Your task to perform on an android device: check android version Image 0: 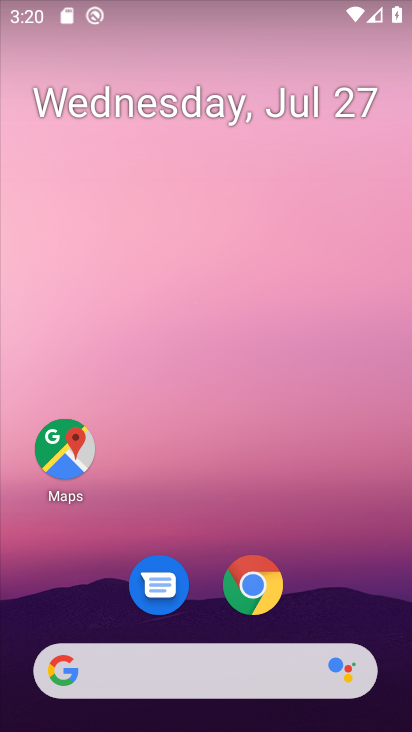
Step 0: drag from (320, 593) to (331, 4)
Your task to perform on an android device: check android version Image 1: 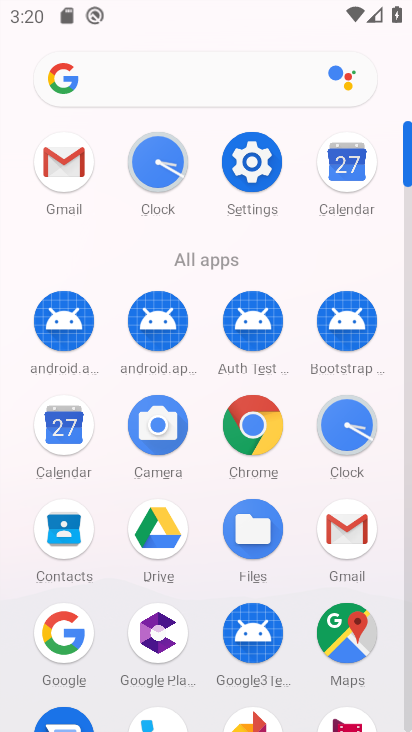
Step 1: click (261, 167)
Your task to perform on an android device: check android version Image 2: 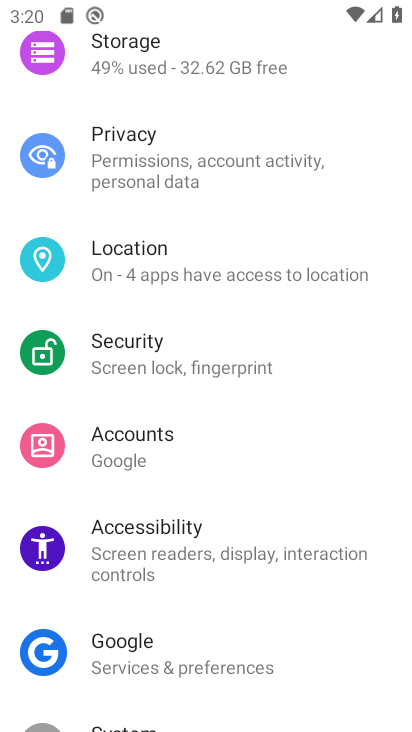
Step 2: drag from (250, 580) to (217, 257)
Your task to perform on an android device: check android version Image 3: 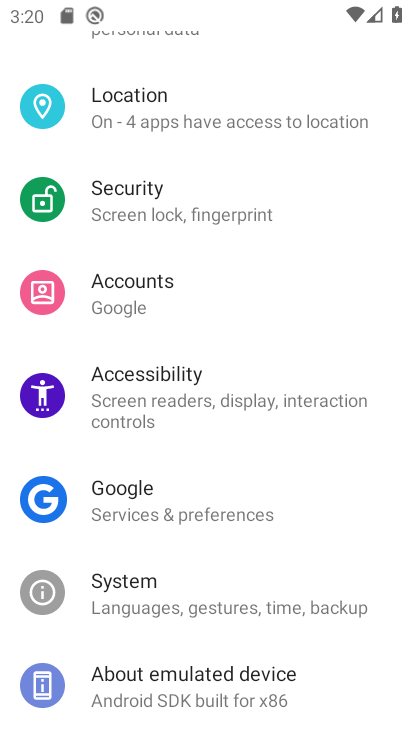
Step 3: click (233, 682)
Your task to perform on an android device: check android version Image 4: 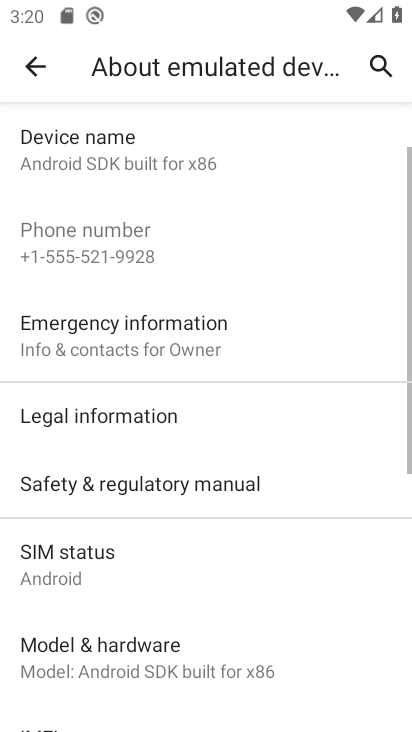
Step 4: drag from (246, 601) to (233, 158)
Your task to perform on an android device: check android version Image 5: 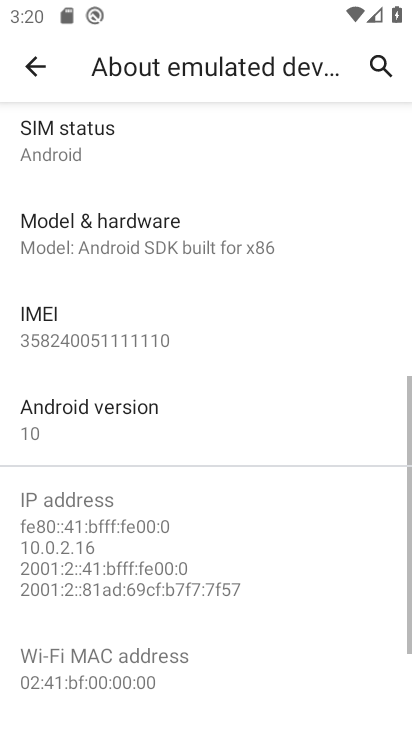
Step 5: click (142, 435)
Your task to perform on an android device: check android version Image 6: 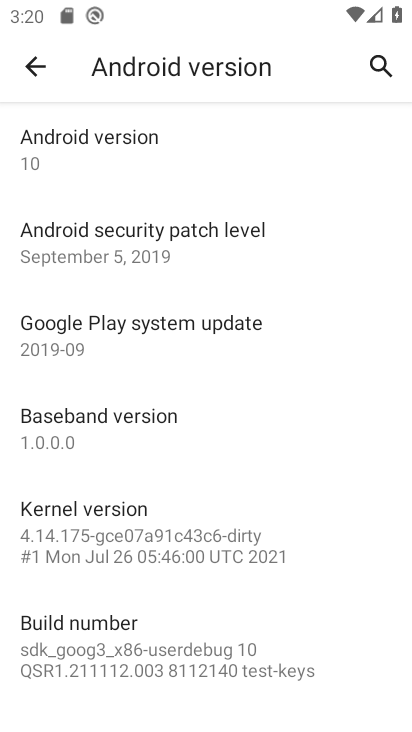
Step 6: task complete